Your task to perform on an android device: Check the news Image 0: 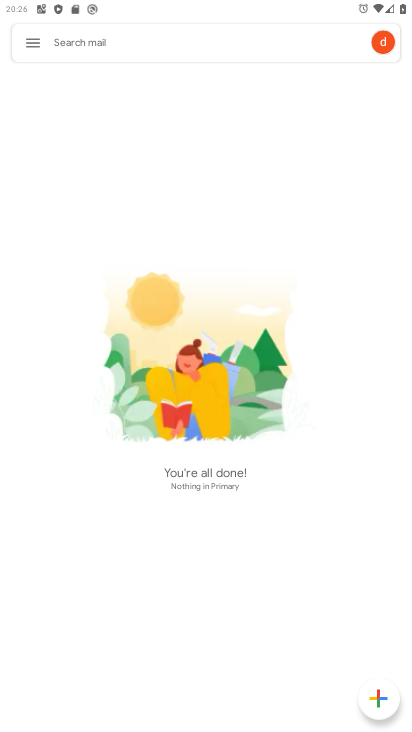
Step 0: drag from (243, 555) to (346, 19)
Your task to perform on an android device: Check the news Image 1: 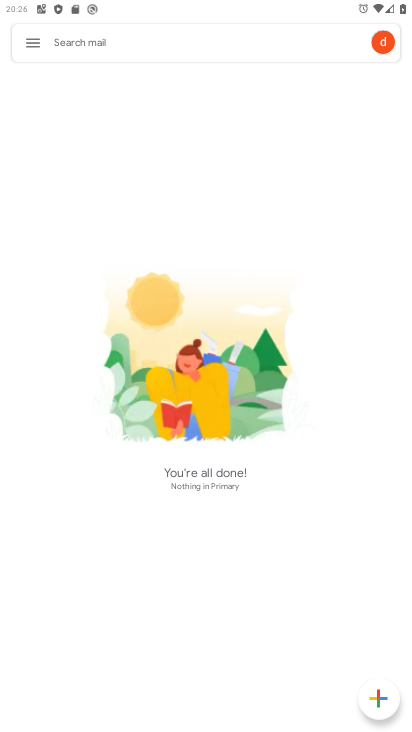
Step 1: press home button
Your task to perform on an android device: Check the news Image 2: 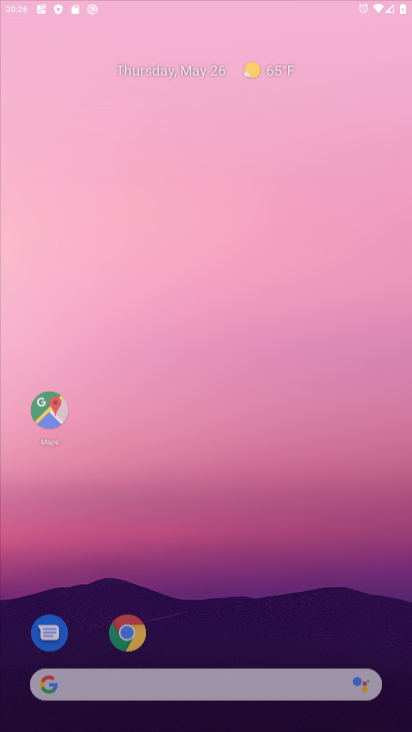
Step 2: drag from (262, 522) to (243, 220)
Your task to perform on an android device: Check the news Image 3: 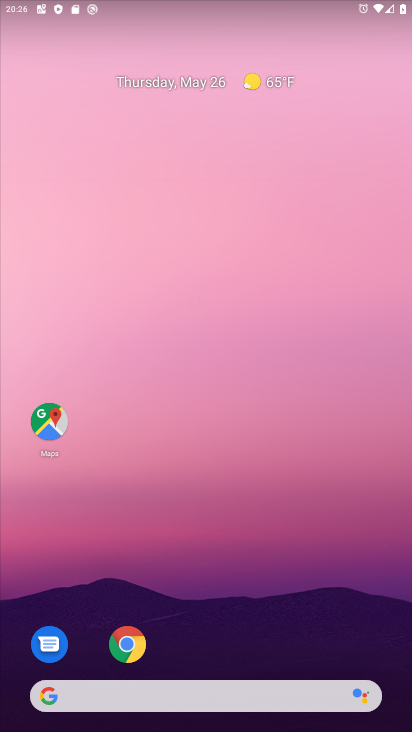
Step 3: drag from (195, 610) to (216, 52)
Your task to perform on an android device: Check the news Image 4: 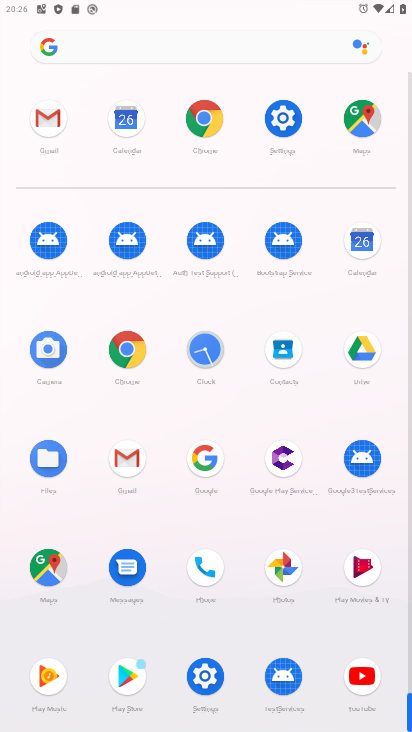
Step 4: click (175, 43)
Your task to perform on an android device: Check the news Image 5: 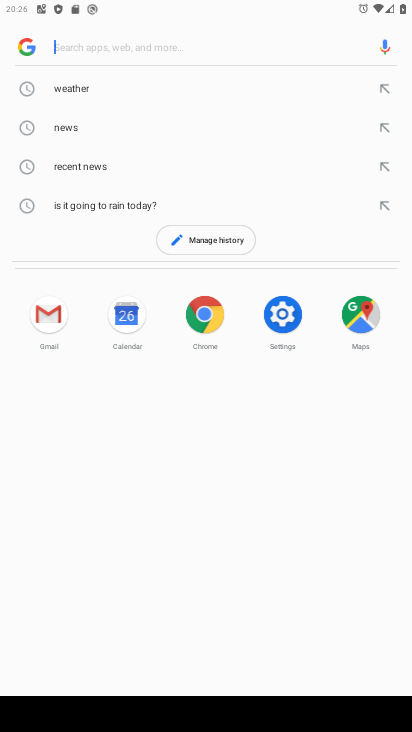
Step 5: click (77, 128)
Your task to perform on an android device: Check the news Image 6: 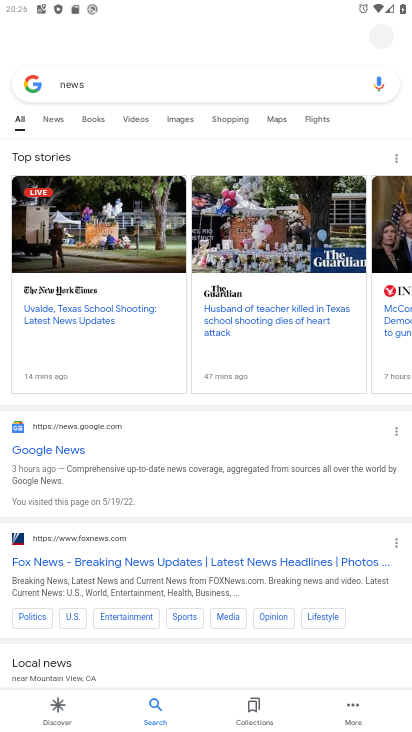
Step 6: task complete